Your task to perform on an android device: Toggle the flashlight Image 0: 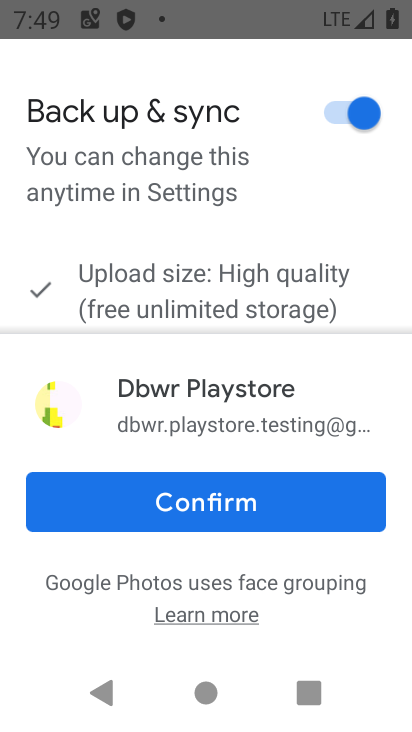
Step 0: press home button
Your task to perform on an android device: Toggle the flashlight Image 1: 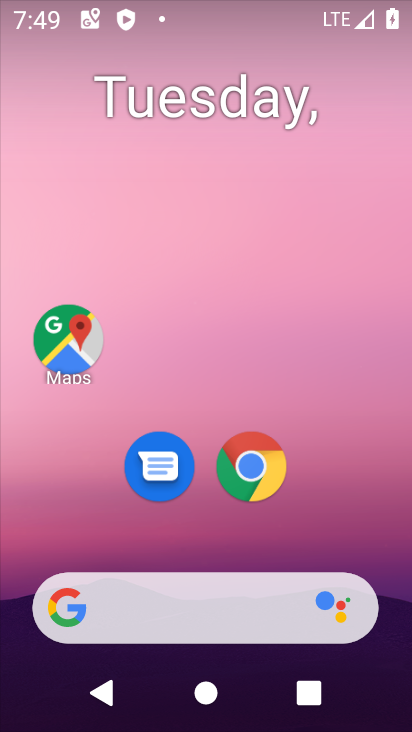
Step 1: drag from (395, 496) to (302, 121)
Your task to perform on an android device: Toggle the flashlight Image 2: 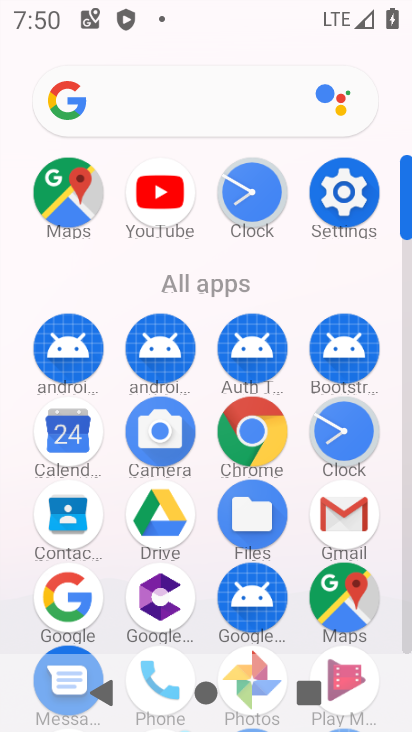
Step 2: click (357, 207)
Your task to perform on an android device: Toggle the flashlight Image 3: 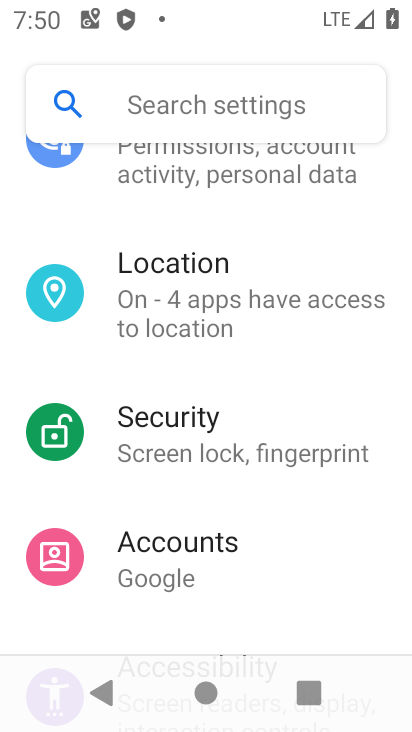
Step 3: task complete